Your task to perform on an android device: Open the stopwatch Image 0: 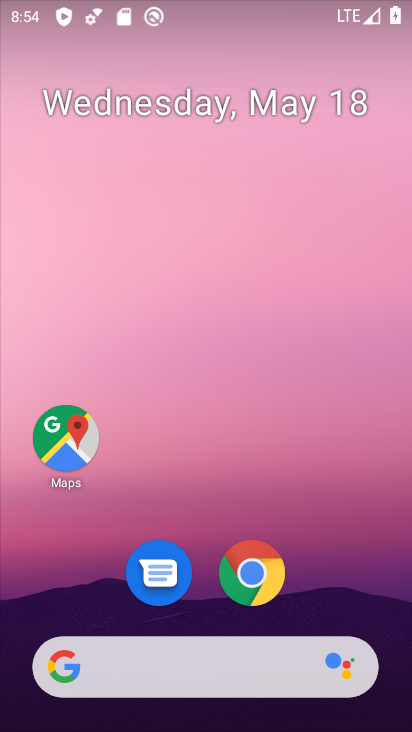
Step 0: drag from (161, 717) to (210, 122)
Your task to perform on an android device: Open the stopwatch Image 1: 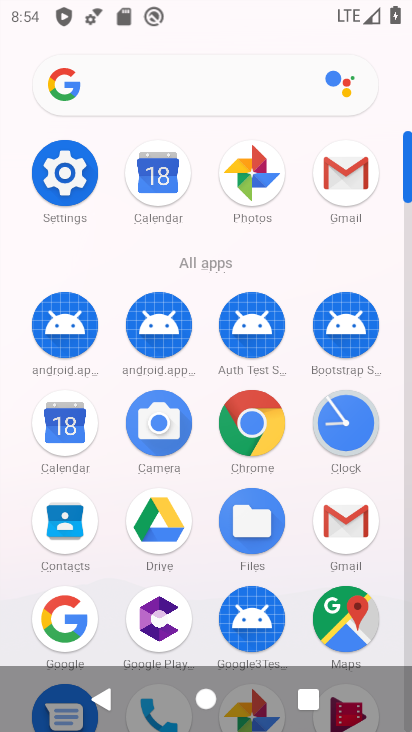
Step 1: click (348, 408)
Your task to perform on an android device: Open the stopwatch Image 2: 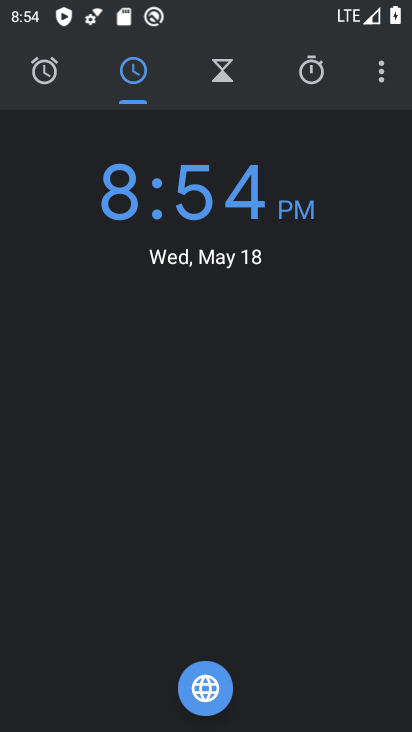
Step 2: click (307, 76)
Your task to perform on an android device: Open the stopwatch Image 3: 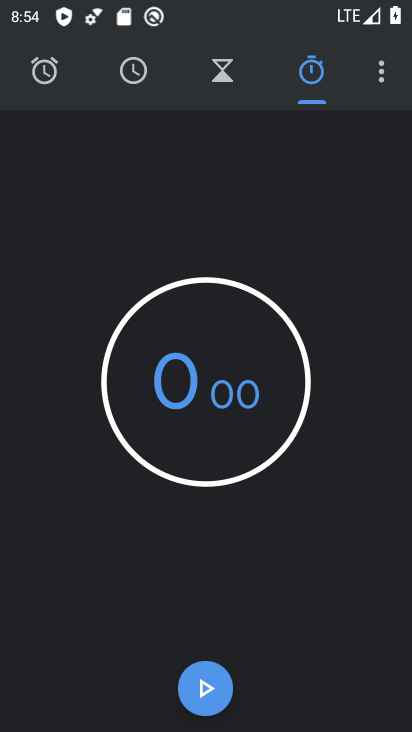
Step 3: task complete